Your task to perform on an android device: Open my contact list Image 0: 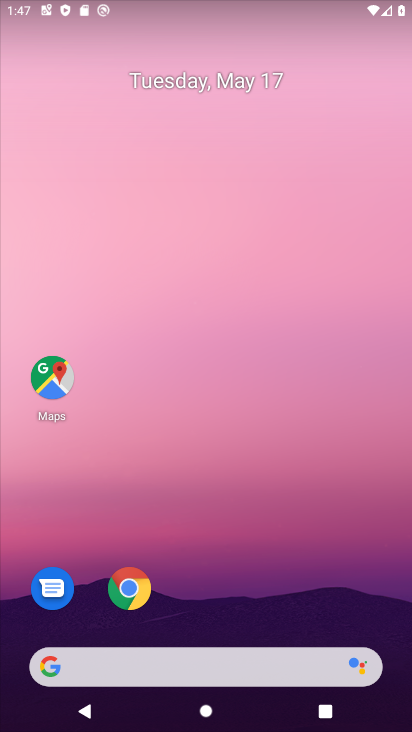
Step 0: drag from (209, 556) to (165, 85)
Your task to perform on an android device: Open my contact list Image 1: 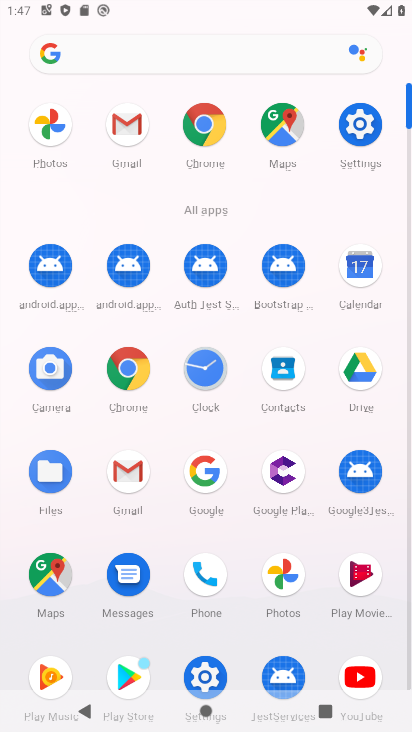
Step 1: click (271, 368)
Your task to perform on an android device: Open my contact list Image 2: 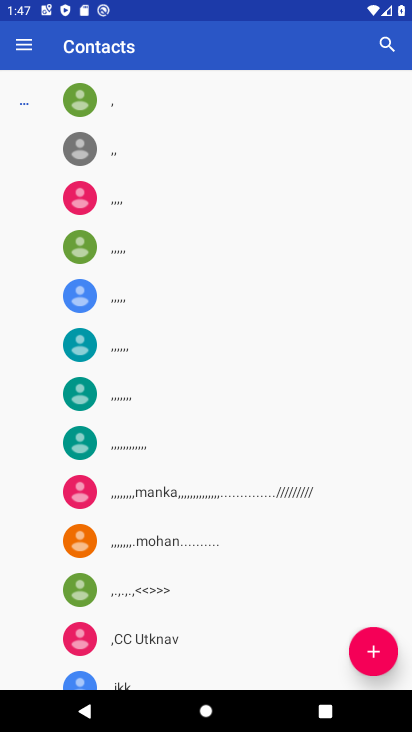
Step 2: task complete